Your task to perform on an android device: turn on improve location accuracy Image 0: 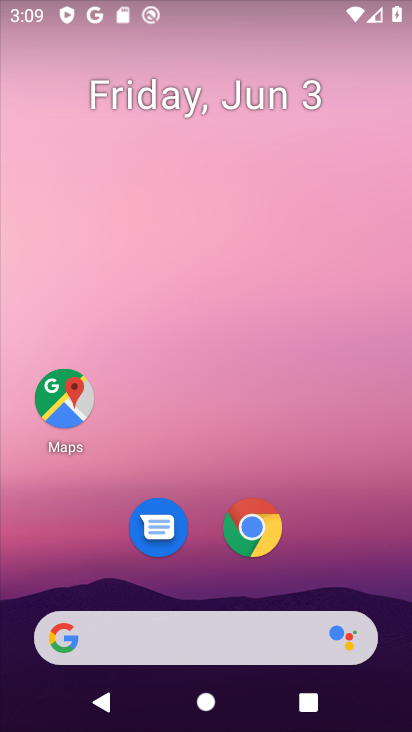
Step 0: drag from (228, 569) to (235, 281)
Your task to perform on an android device: turn on improve location accuracy Image 1: 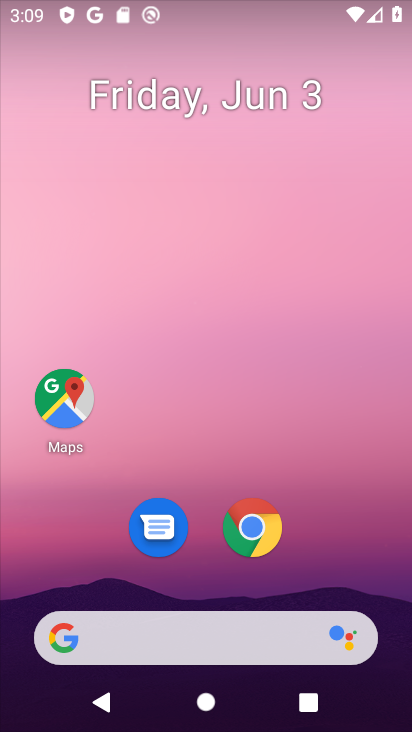
Step 1: drag from (227, 590) to (232, 193)
Your task to perform on an android device: turn on improve location accuracy Image 2: 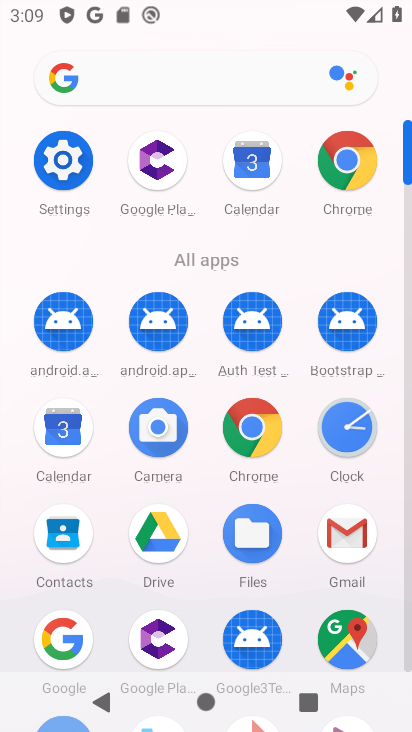
Step 2: click (45, 158)
Your task to perform on an android device: turn on improve location accuracy Image 3: 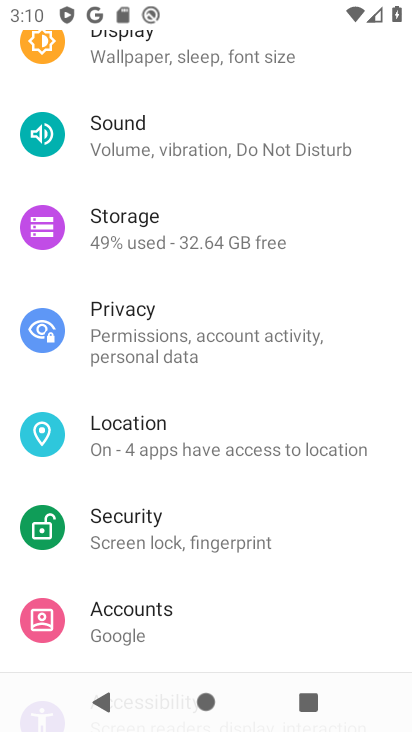
Step 3: drag from (233, 621) to (208, 425)
Your task to perform on an android device: turn on improve location accuracy Image 4: 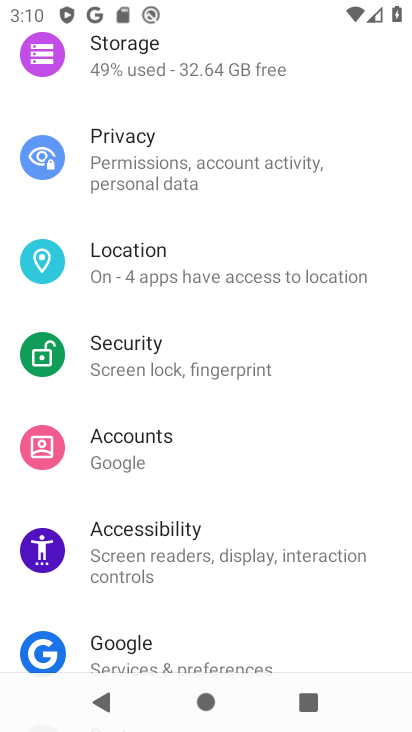
Step 4: click (185, 299)
Your task to perform on an android device: turn on improve location accuracy Image 5: 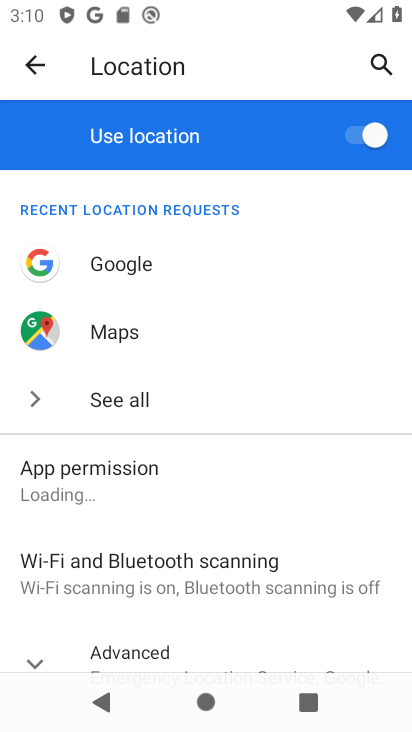
Step 5: drag from (215, 587) to (238, 317)
Your task to perform on an android device: turn on improve location accuracy Image 6: 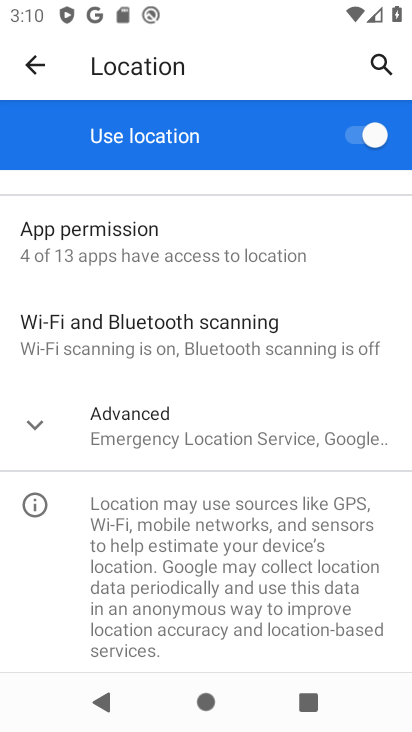
Step 6: click (165, 434)
Your task to perform on an android device: turn on improve location accuracy Image 7: 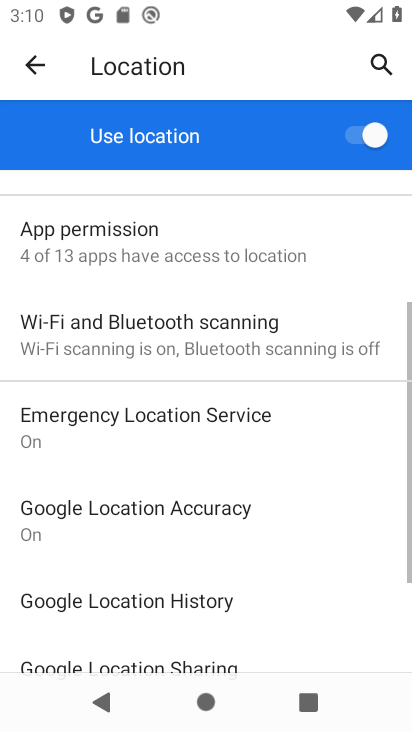
Step 7: drag from (220, 582) to (244, 398)
Your task to perform on an android device: turn on improve location accuracy Image 8: 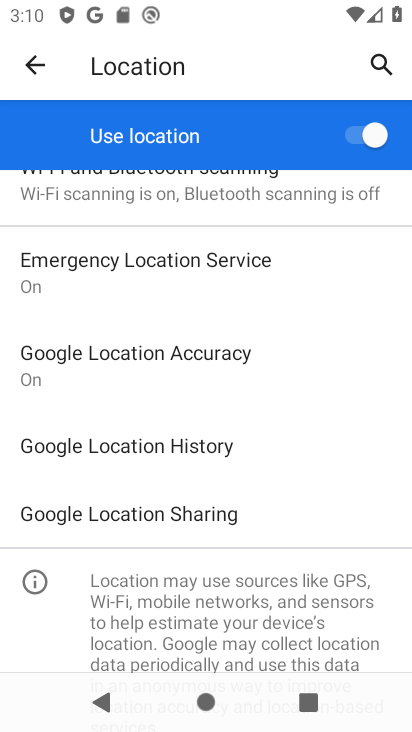
Step 8: click (202, 365)
Your task to perform on an android device: turn on improve location accuracy Image 9: 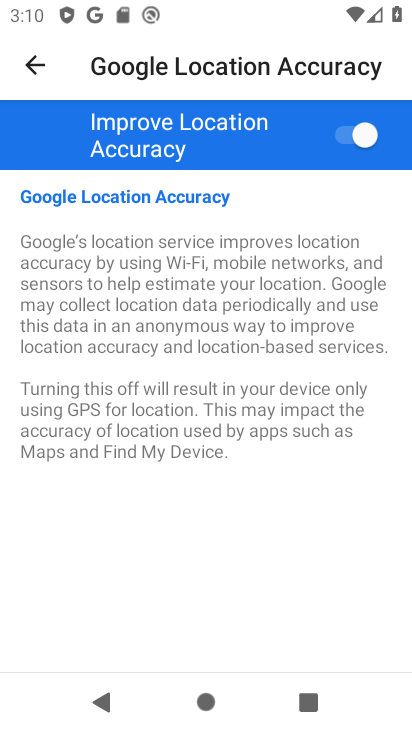
Step 9: task complete